Your task to perform on an android device: What is the recent news? Image 0: 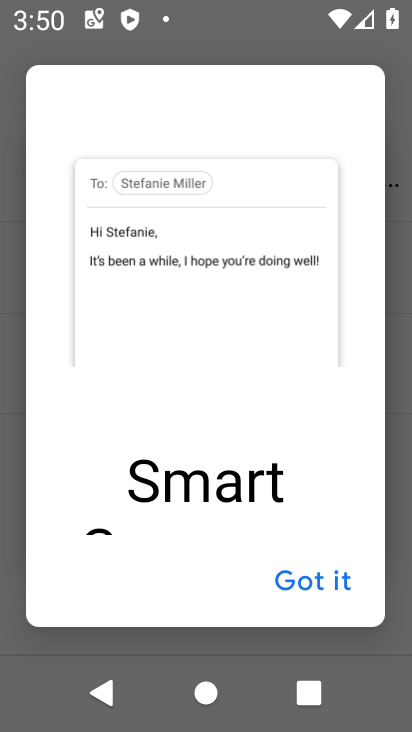
Step 0: press home button
Your task to perform on an android device: What is the recent news? Image 1: 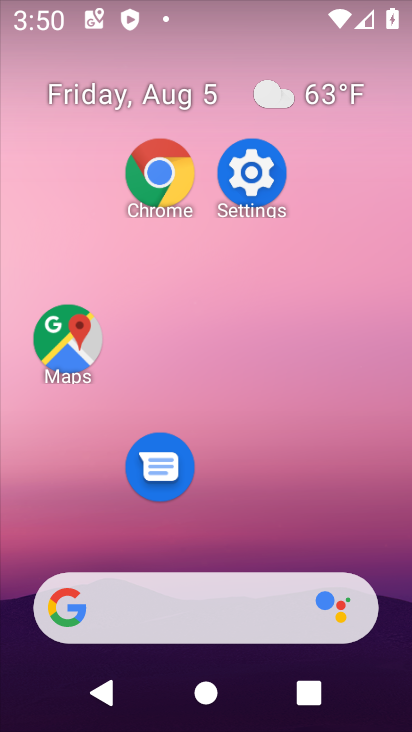
Step 1: drag from (265, 535) to (211, 1)
Your task to perform on an android device: What is the recent news? Image 2: 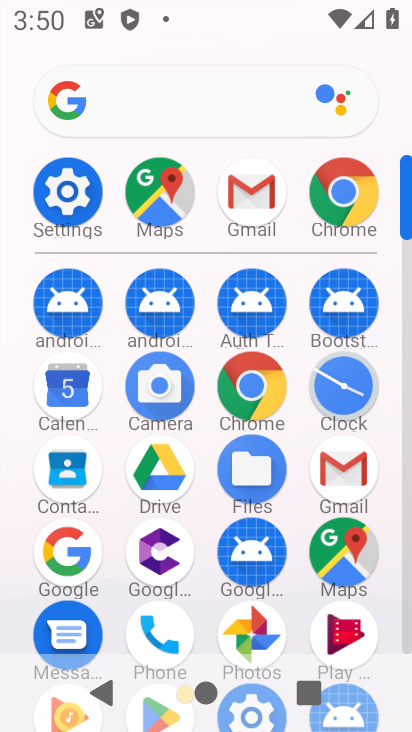
Step 2: click (249, 393)
Your task to perform on an android device: What is the recent news? Image 3: 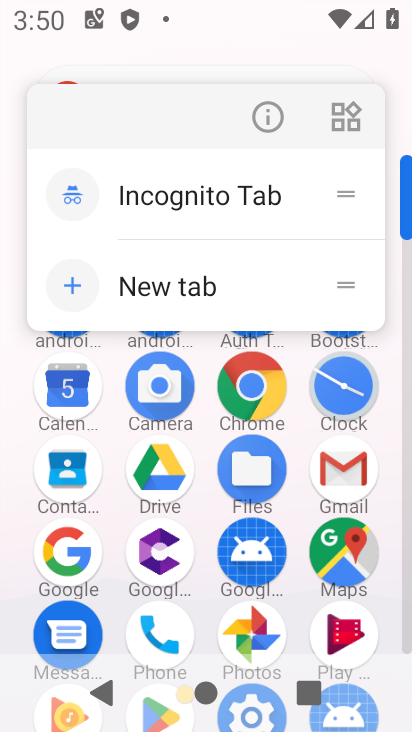
Step 3: click (249, 393)
Your task to perform on an android device: What is the recent news? Image 4: 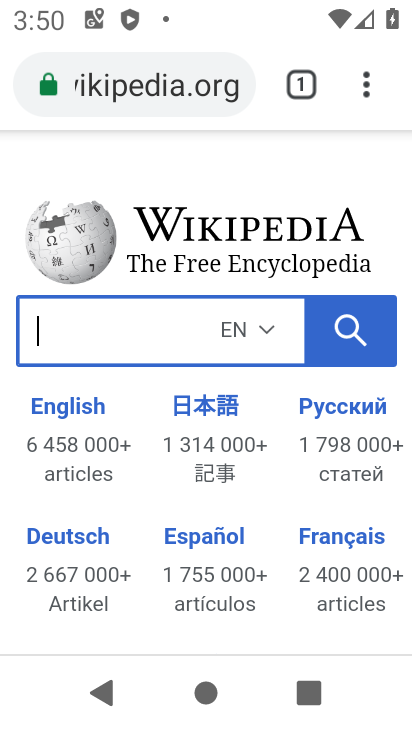
Step 4: click (97, 74)
Your task to perform on an android device: What is the recent news? Image 5: 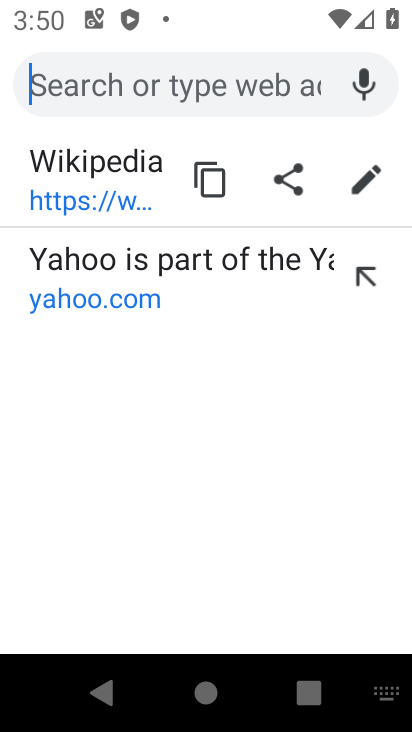
Step 5: type "What is the recent news?"
Your task to perform on an android device: What is the recent news? Image 6: 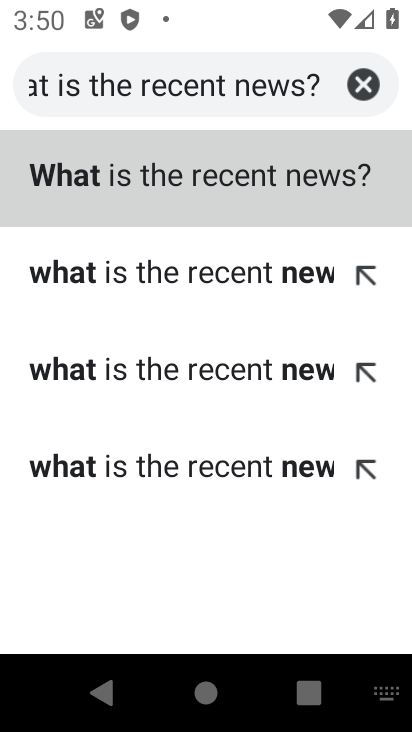
Step 6: click (274, 166)
Your task to perform on an android device: What is the recent news? Image 7: 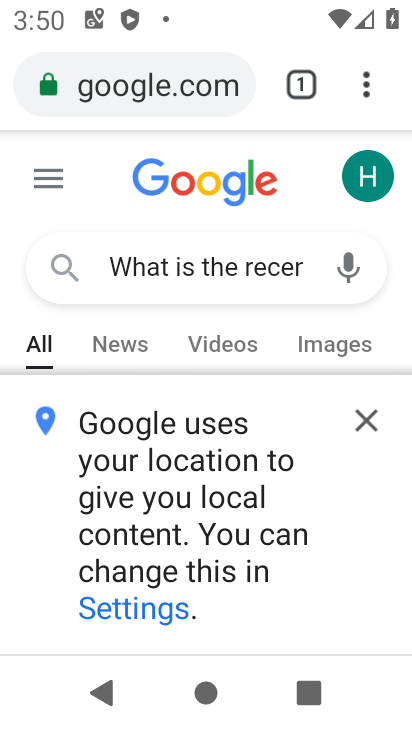
Step 7: click (361, 415)
Your task to perform on an android device: What is the recent news? Image 8: 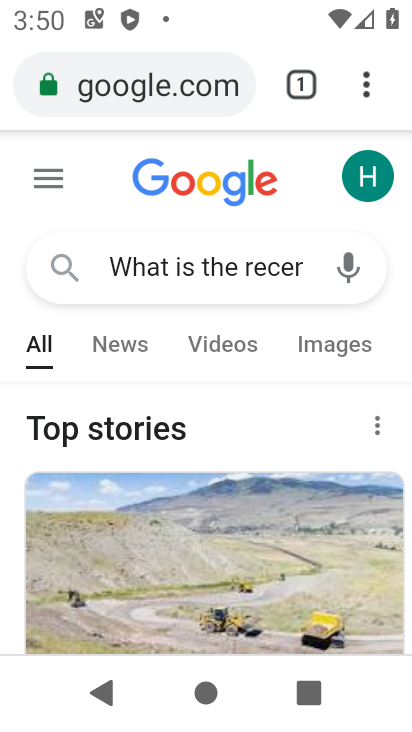
Step 8: click (126, 338)
Your task to perform on an android device: What is the recent news? Image 9: 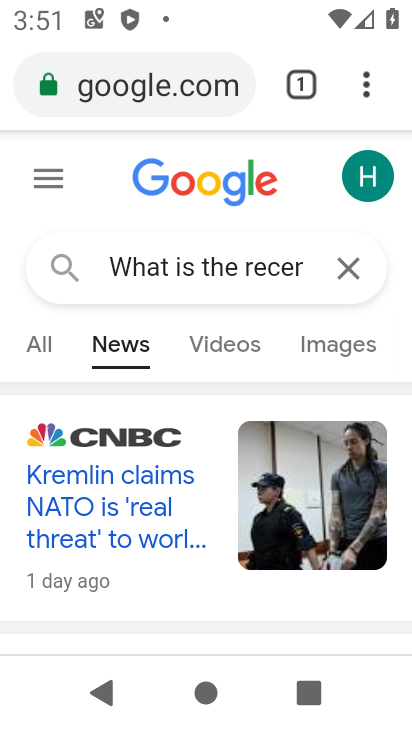
Step 9: task complete